Your task to perform on an android device: Search for pizza restaurants on Maps Image 0: 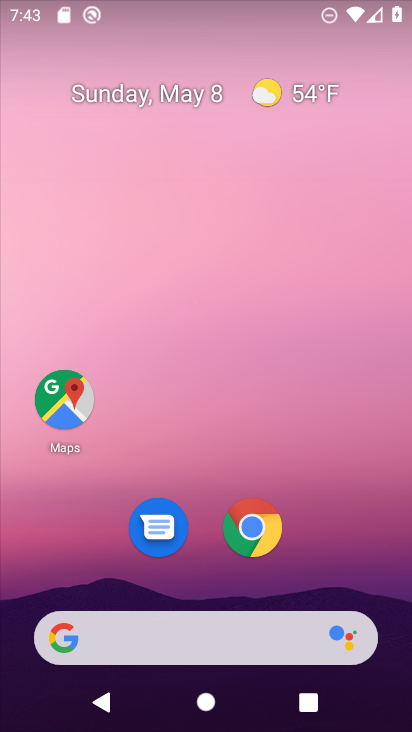
Step 0: click (61, 400)
Your task to perform on an android device: Search for pizza restaurants on Maps Image 1: 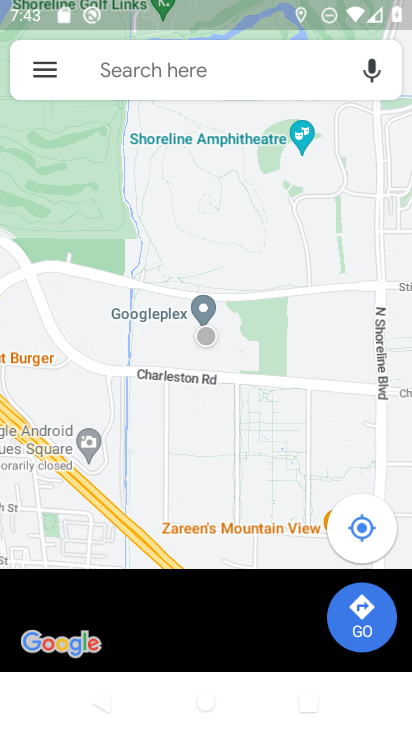
Step 1: click (224, 57)
Your task to perform on an android device: Search for pizza restaurants on Maps Image 2: 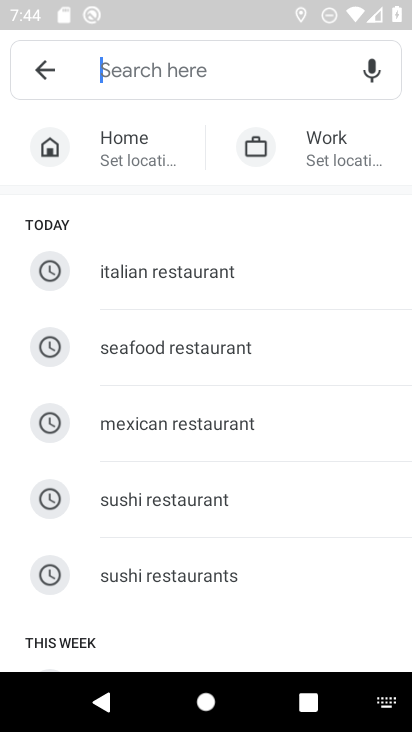
Step 2: type "pizza restaurants"
Your task to perform on an android device: Search for pizza restaurants on Maps Image 3: 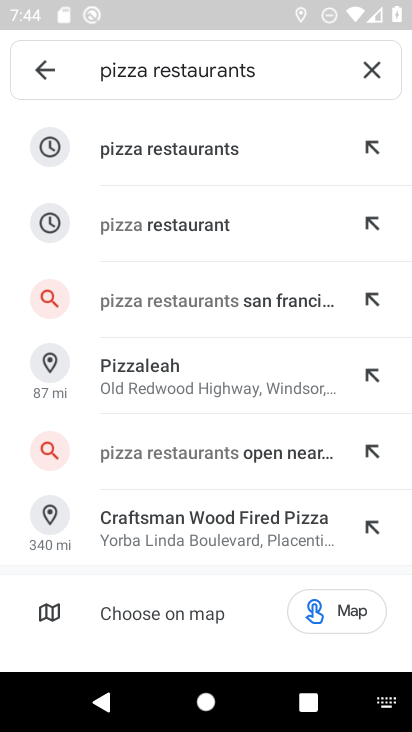
Step 3: click (206, 149)
Your task to perform on an android device: Search for pizza restaurants on Maps Image 4: 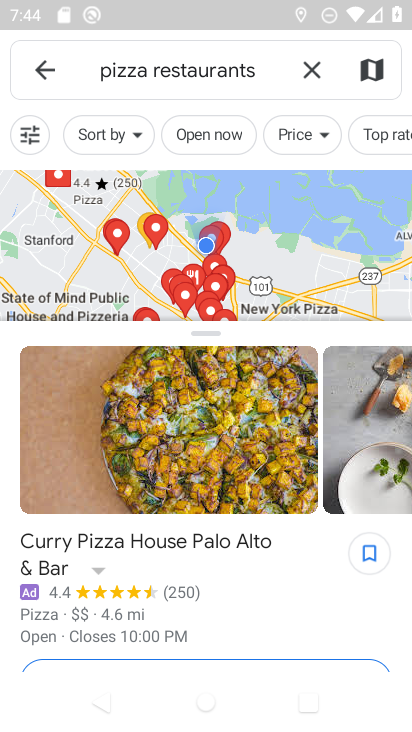
Step 4: task complete